Your task to perform on an android device: Go to Google Image 0: 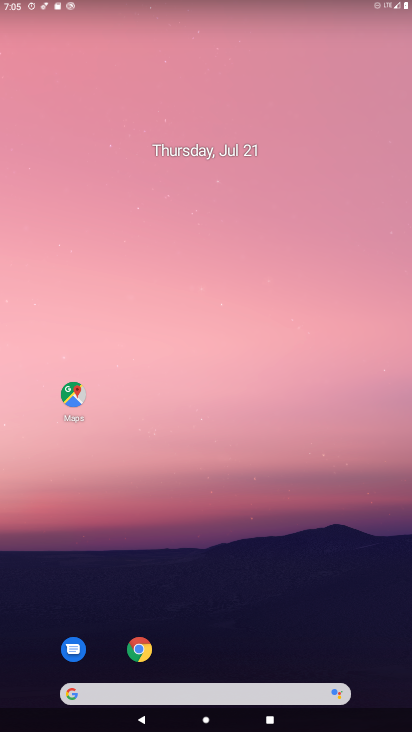
Step 0: drag from (326, 613) to (206, 43)
Your task to perform on an android device: Go to Google Image 1: 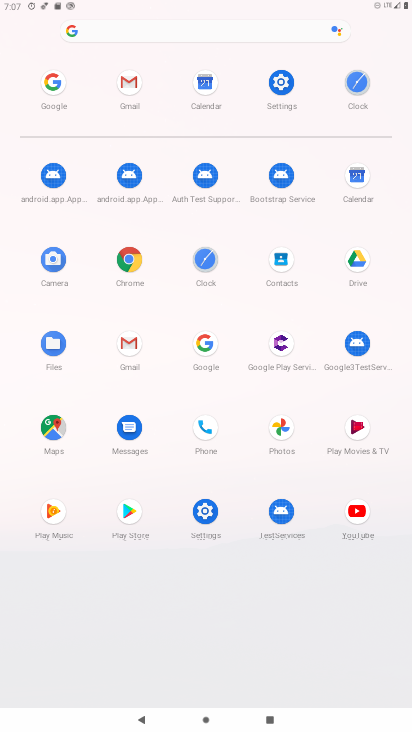
Step 1: click (206, 342)
Your task to perform on an android device: Go to Google Image 2: 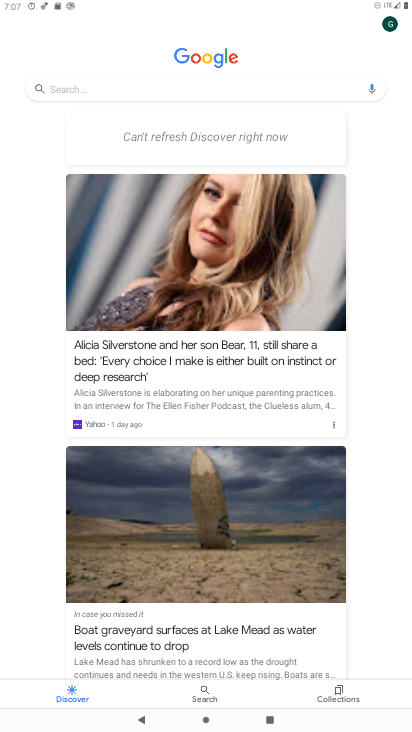
Step 2: task complete